Your task to perform on an android device: Open Wikipedia Image 0: 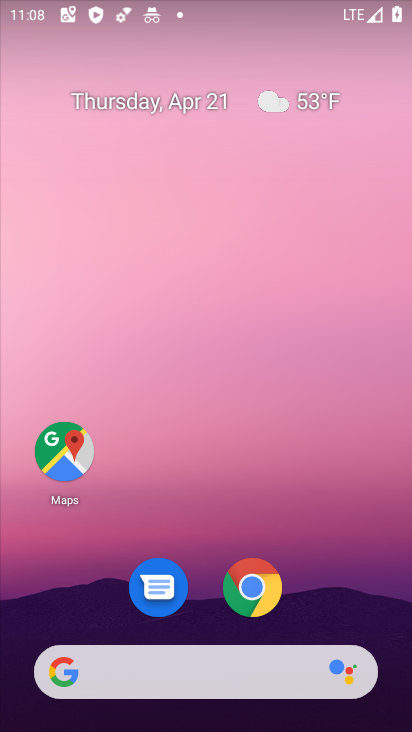
Step 0: click (235, 597)
Your task to perform on an android device: Open Wikipedia Image 1: 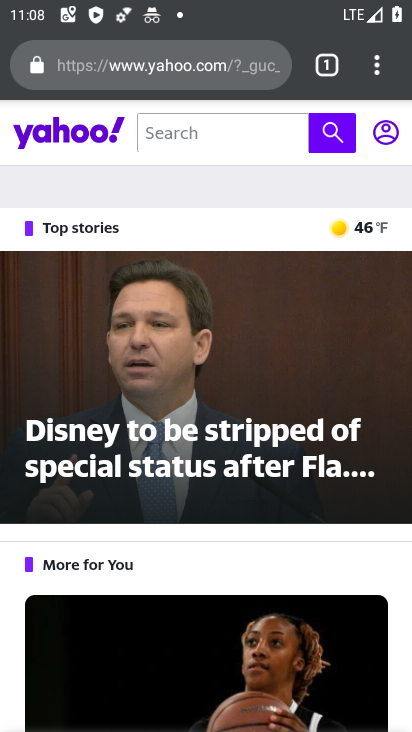
Step 1: click (170, 81)
Your task to perform on an android device: Open Wikipedia Image 2: 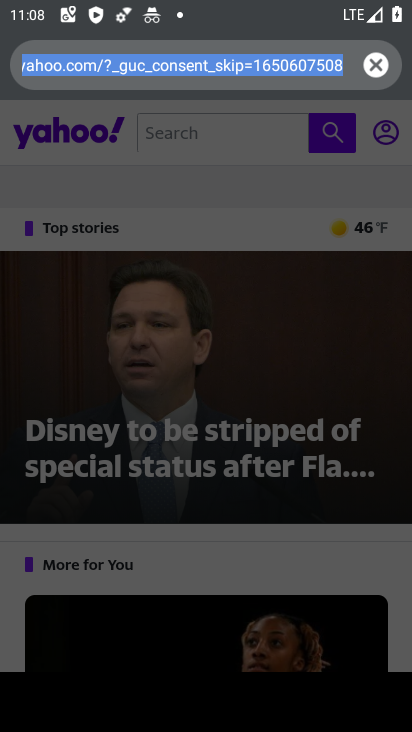
Step 2: type "wikipedia"
Your task to perform on an android device: Open Wikipedia Image 3: 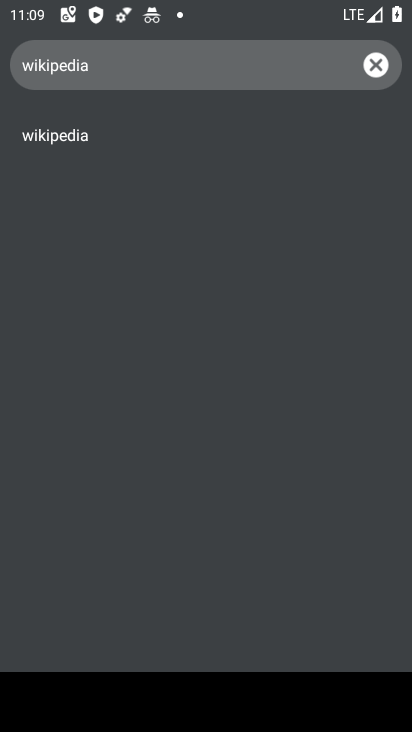
Step 3: click (61, 171)
Your task to perform on an android device: Open Wikipedia Image 4: 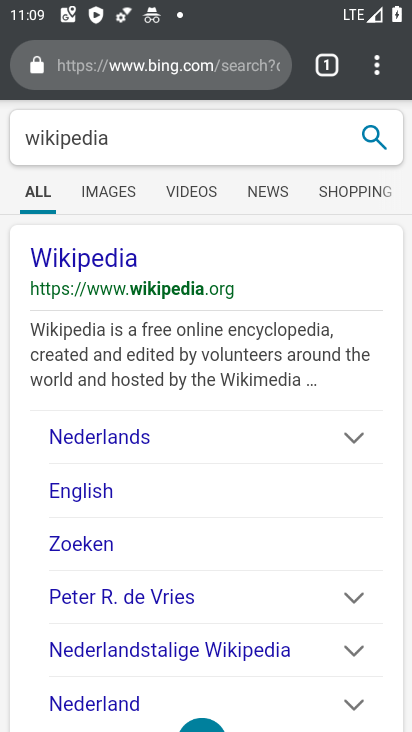
Step 4: click (100, 265)
Your task to perform on an android device: Open Wikipedia Image 5: 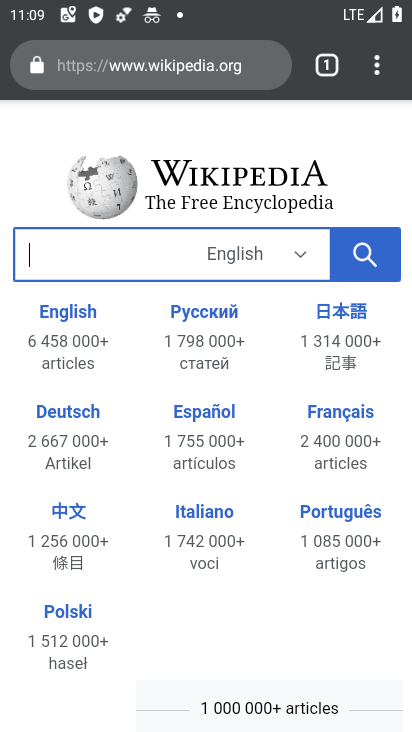
Step 5: task complete